Your task to perform on an android device: Open the phone app and click the voicemail tab. Image 0: 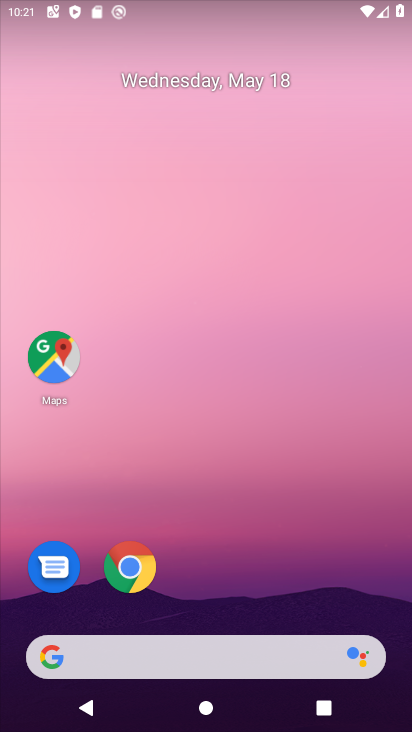
Step 0: press home button
Your task to perform on an android device: Open the phone app and click the voicemail tab. Image 1: 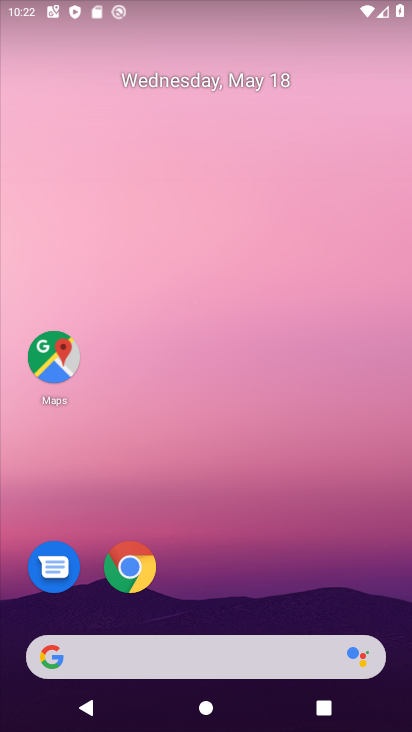
Step 1: drag from (250, 685) to (235, 217)
Your task to perform on an android device: Open the phone app and click the voicemail tab. Image 2: 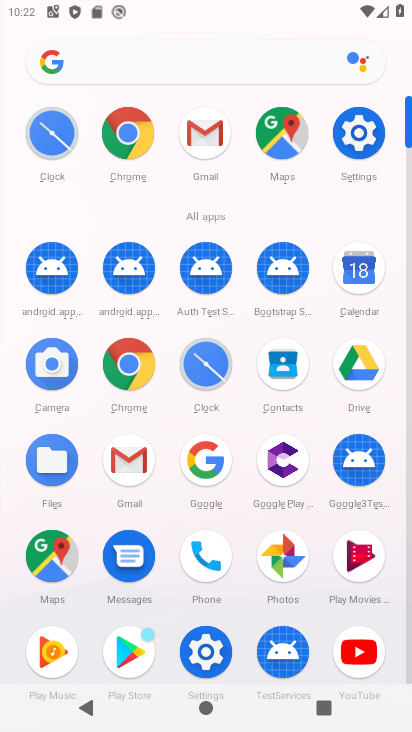
Step 2: click (214, 561)
Your task to perform on an android device: Open the phone app and click the voicemail tab. Image 3: 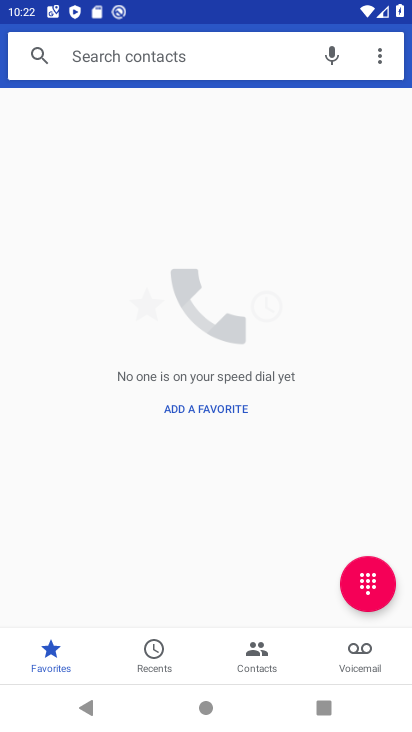
Step 3: click (353, 657)
Your task to perform on an android device: Open the phone app and click the voicemail tab. Image 4: 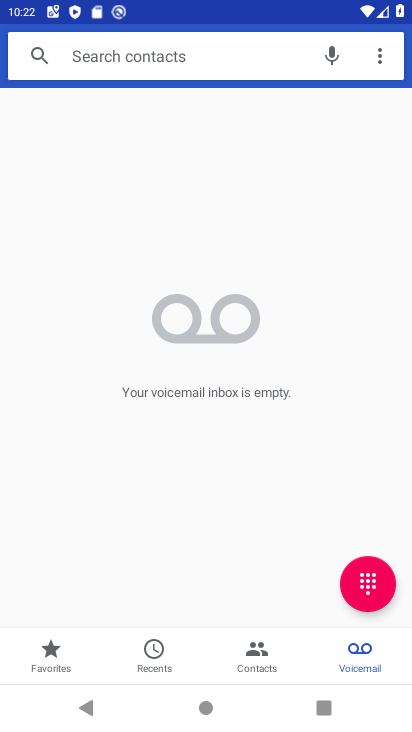
Step 4: task complete